Your task to perform on an android device: What's the weather going to be tomorrow? Image 0: 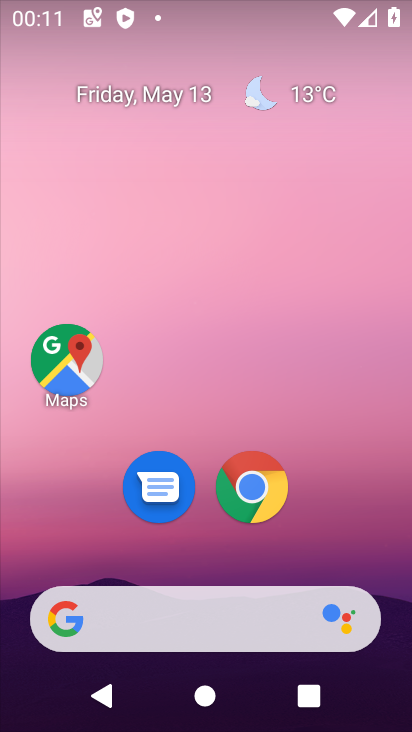
Step 0: click (329, 91)
Your task to perform on an android device: What's the weather going to be tomorrow? Image 1: 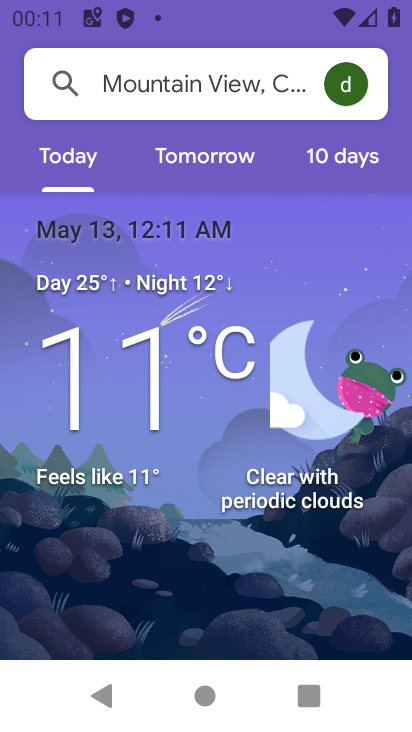
Step 1: click (203, 169)
Your task to perform on an android device: What's the weather going to be tomorrow? Image 2: 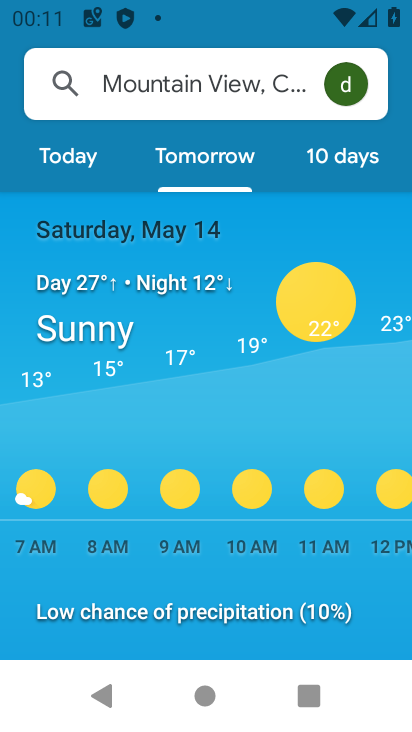
Step 2: task complete